Your task to perform on an android device: turn off picture-in-picture Image 0: 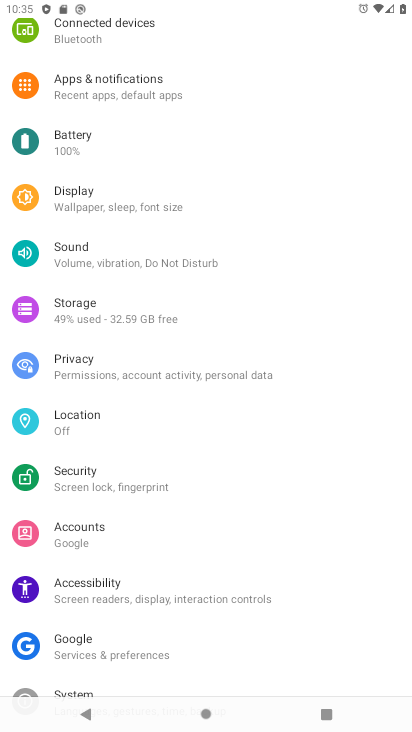
Step 0: drag from (230, 151) to (204, 574)
Your task to perform on an android device: turn off picture-in-picture Image 1: 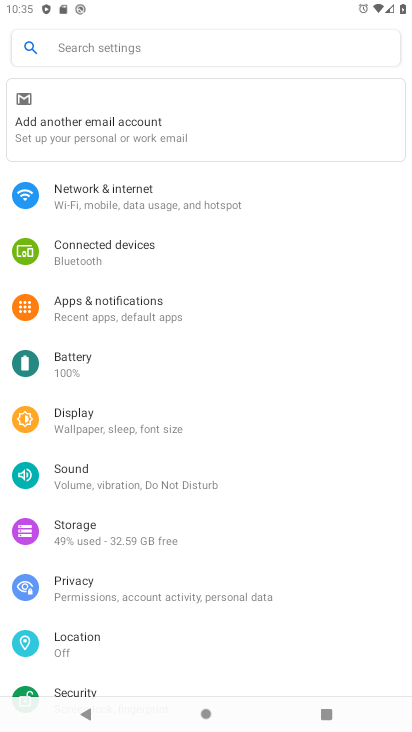
Step 1: click (97, 311)
Your task to perform on an android device: turn off picture-in-picture Image 2: 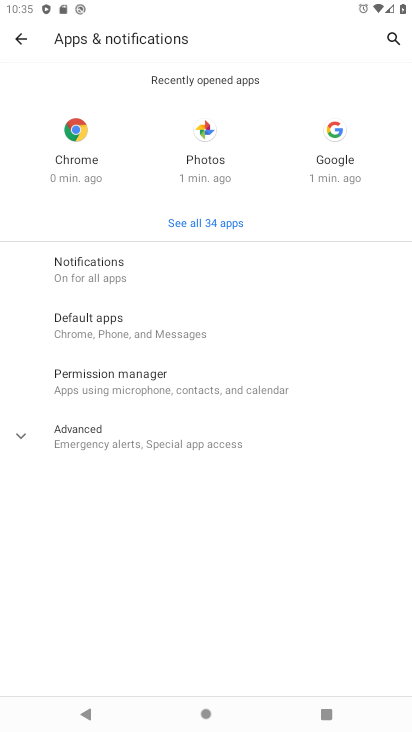
Step 2: click (69, 432)
Your task to perform on an android device: turn off picture-in-picture Image 3: 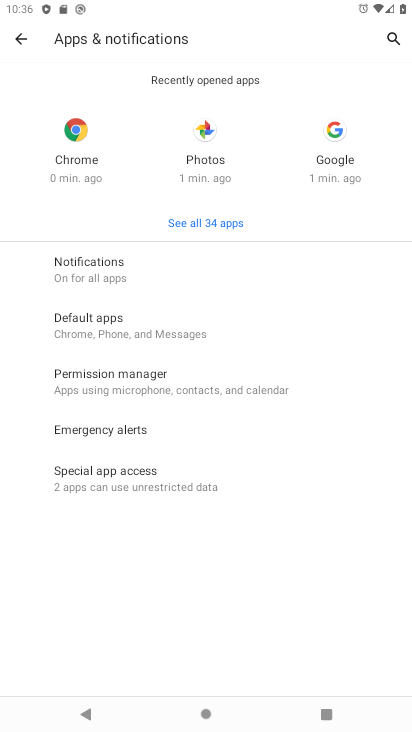
Step 3: click (85, 479)
Your task to perform on an android device: turn off picture-in-picture Image 4: 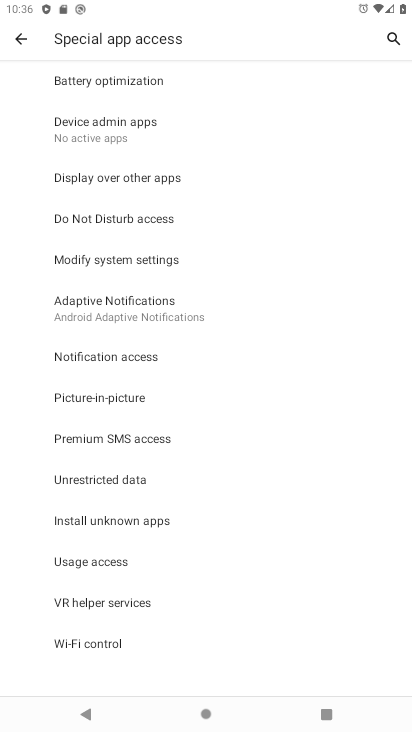
Step 4: click (111, 397)
Your task to perform on an android device: turn off picture-in-picture Image 5: 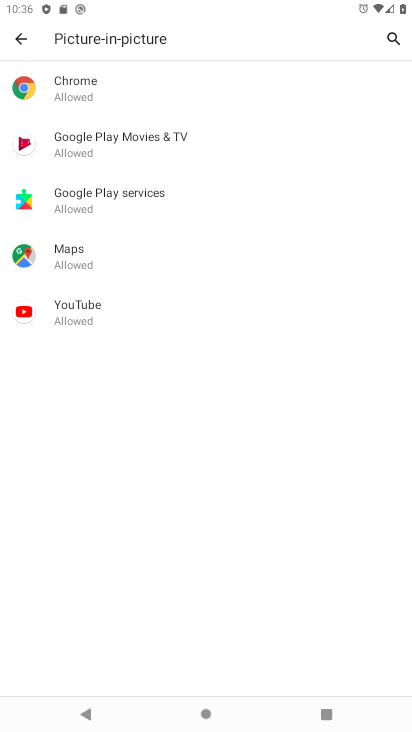
Step 5: click (68, 312)
Your task to perform on an android device: turn off picture-in-picture Image 6: 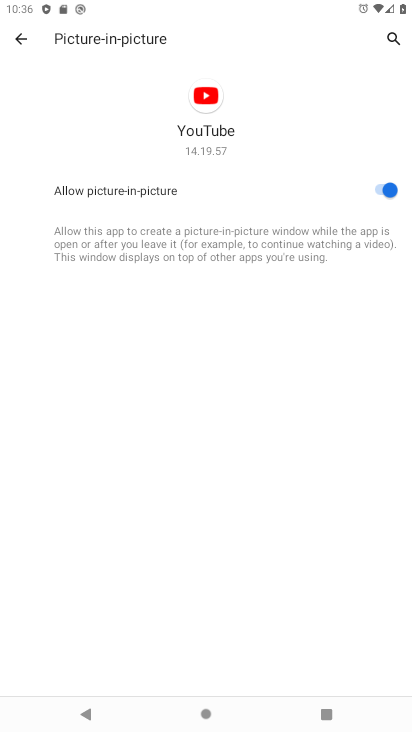
Step 6: click (385, 185)
Your task to perform on an android device: turn off picture-in-picture Image 7: 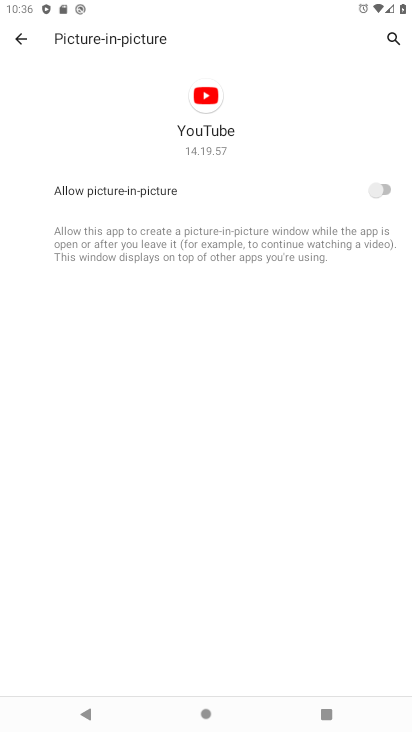
Step 7: task complete